Your task to perform on an android device: Search for Mexican restaurants on Maps Image 0: 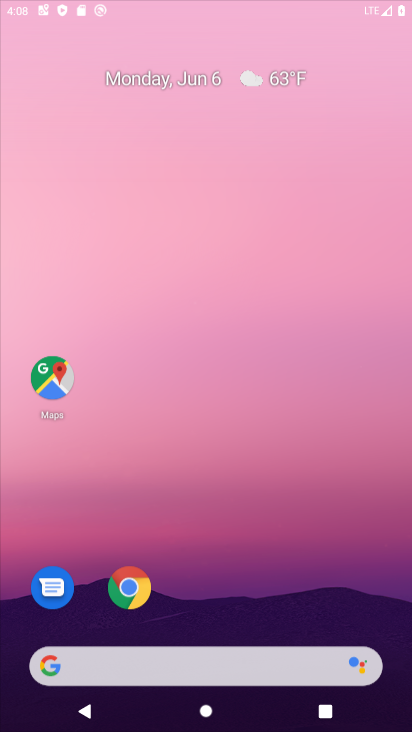
Step 0: drag from (220, 512) to (179, 284)
Your task to perform on an android device: Search for Mexican restaurants on Maps Image 1: 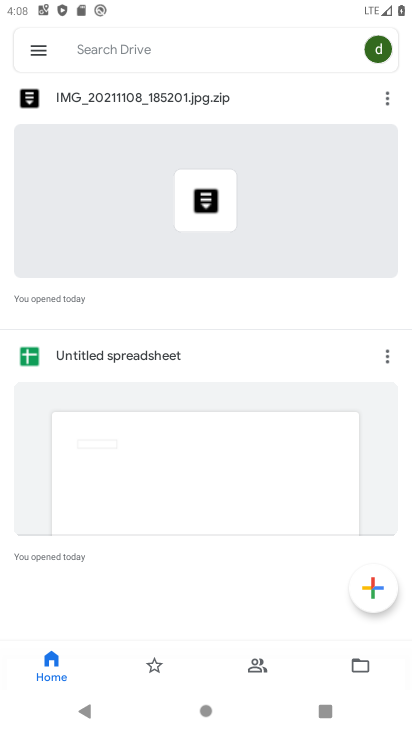
Step 1: press back button
Your task to perform on an android device: Search for Mexican restaurants on Maps Image 2: 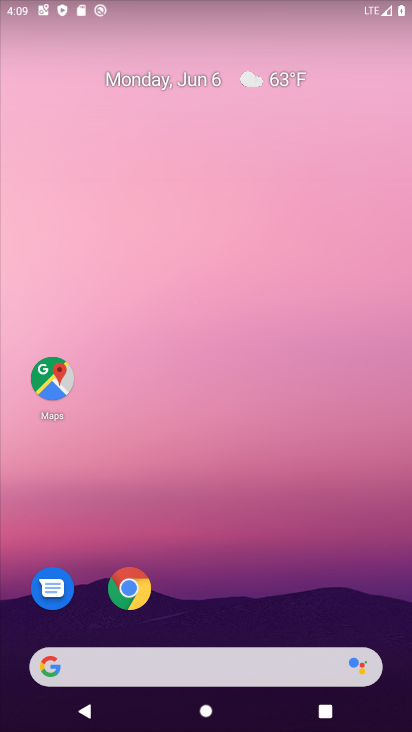
Step 2: drag from (270, 651) to (176, 55)
Your task to perform on an android device: Search for Mexican restaurants on Maps Image 3: 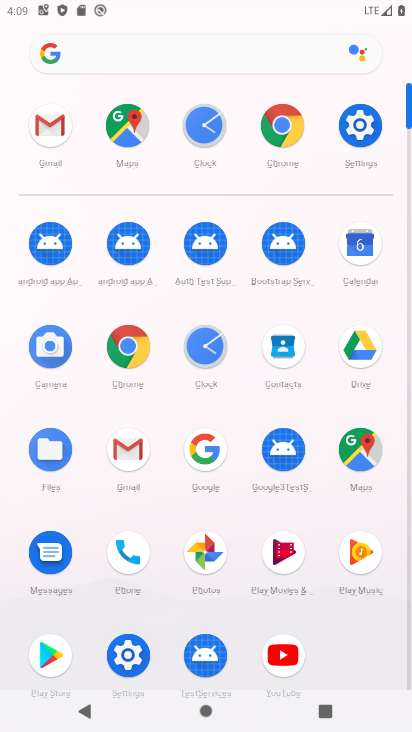
Step 3: click (362, 465)
Your task to perform on an android device: Search for Mexican restaurants on Maps Image 4: 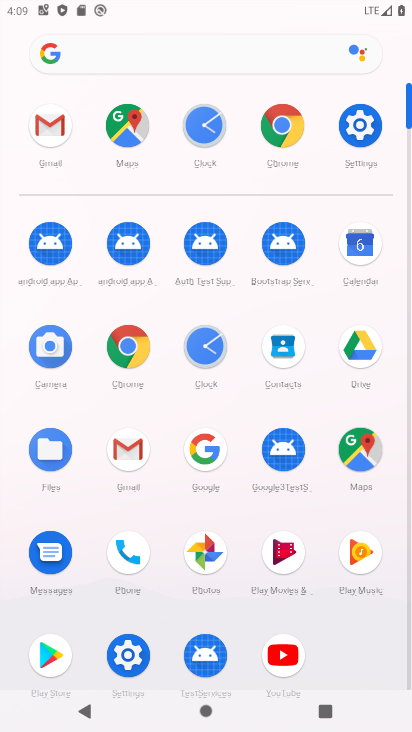
Step 4: click (366, 463)
Your task to perform on an android device: Search for Mexican restaurants on Maps Image 5: 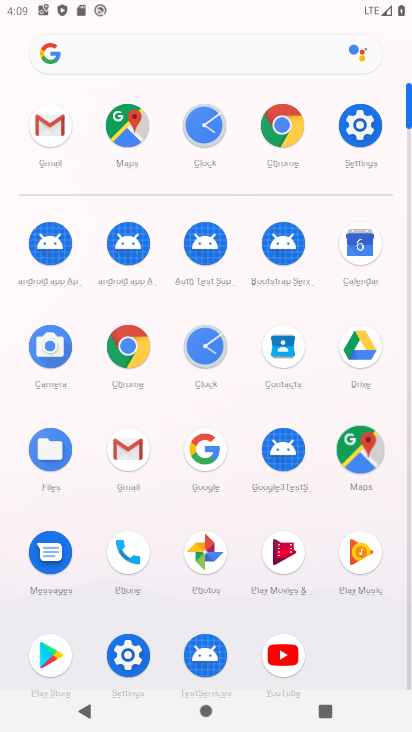
Step 5: click (366, 463)
Your task to perform on an android device: Search for Mexican restaurants on Maps Image 6: 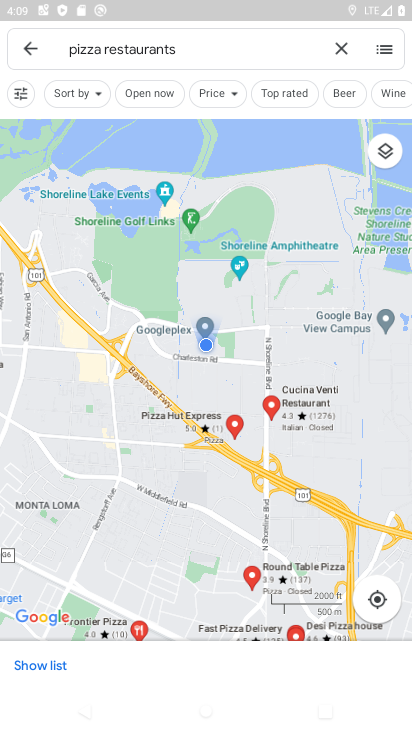
Step 6: click (339, 52)
Your task to perform on an android device: Search for Mexican restaurants on Maps Image 7: 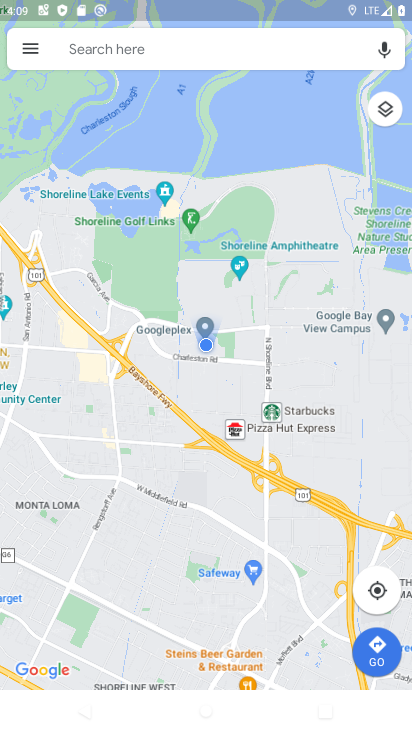
Step 7: click (68, 49)
Your task to perform on an android device: Search for Mexican restaurants on Maps Image 8: 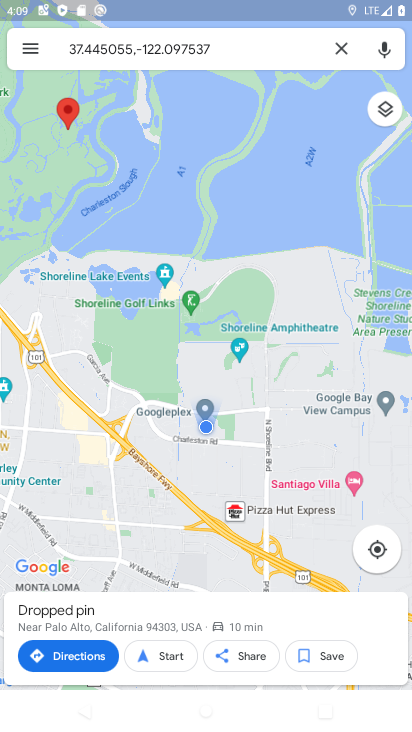
Step 8: type "m"
Your task to perform on an android device: Search for Mexican restaurants on Maps Image 9: 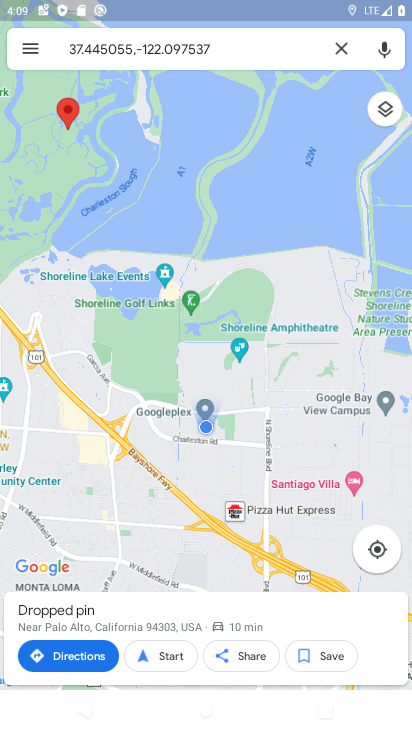
Step 9: click (76, 45)
Your task to perform on an android device: Search for Mexican restaurants on Maps Image 10: 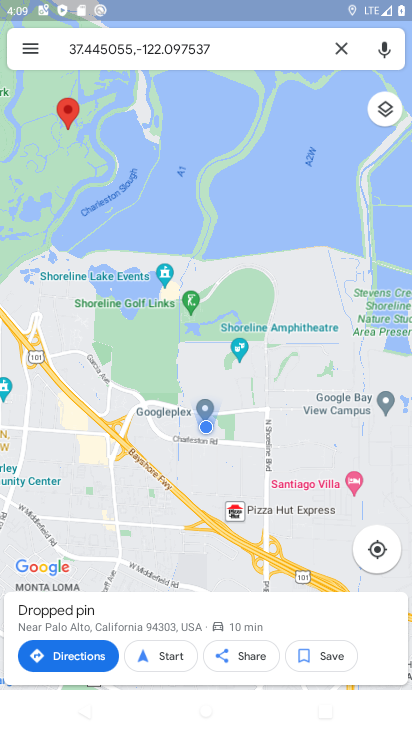
Step 10: click (348, 49)
Your task to perform on an android device: Search for Mexican restaurants on Maps Image 11: 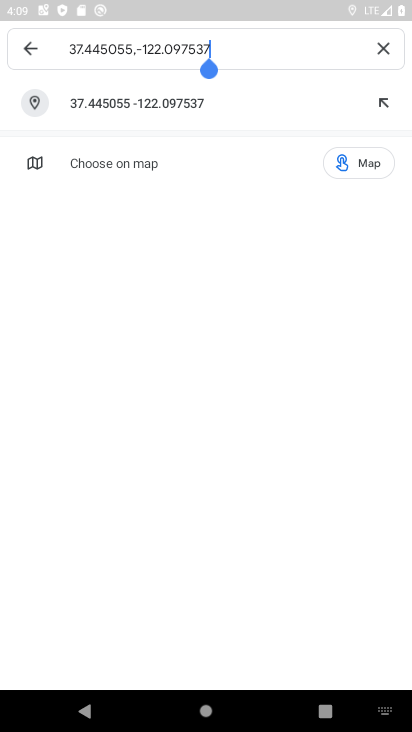
Step 11: click (373, 37)
Your task to perform on an android device: Search for Mexican restaurants on Maps Image 12: 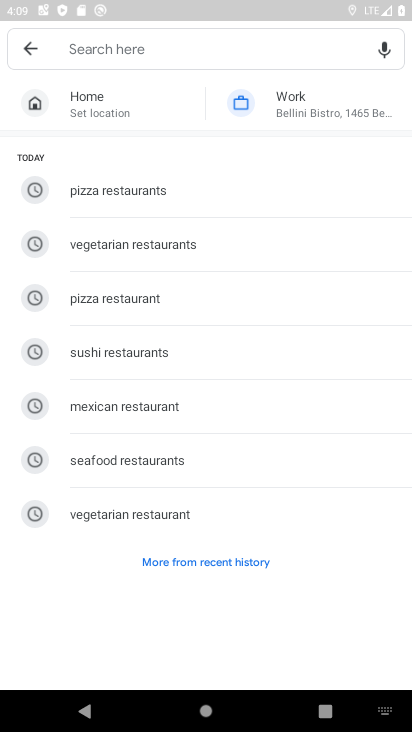
Step 12: click (389, 47)
Your task to perform on an android device: Search for Mexican restaurants on Maps Image 13: 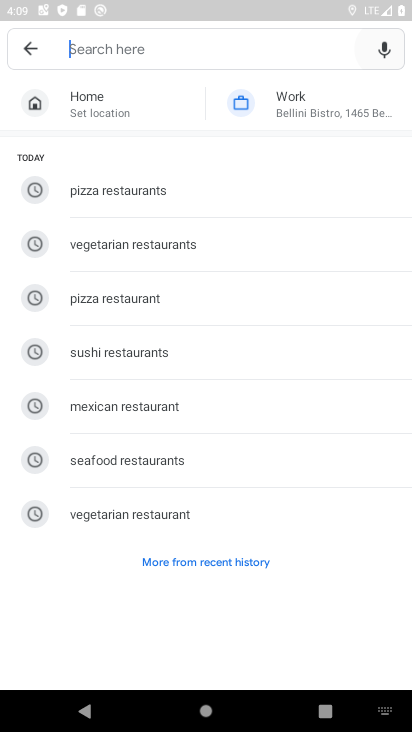
Step 13: click (389, 47)
Your task to perform on an android device: Search for Mexican restaurants on Maps Image 14: 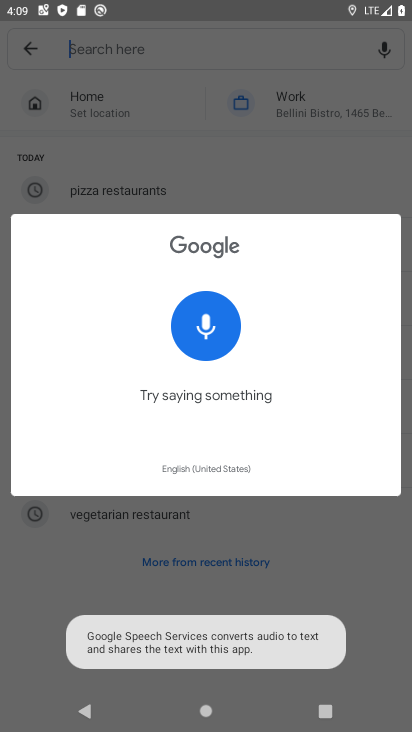
Step 14: click (210, 155)
Your task to perform on an android device: Search for Mexican restaurants on Maps Image 15: 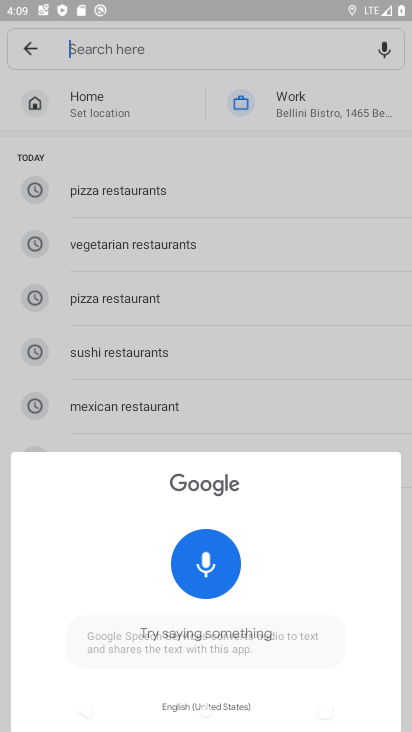
Step 15: click (210, 155)
Your task to perform on an android device: Search for Mexican restaurants on Maps Image 16: 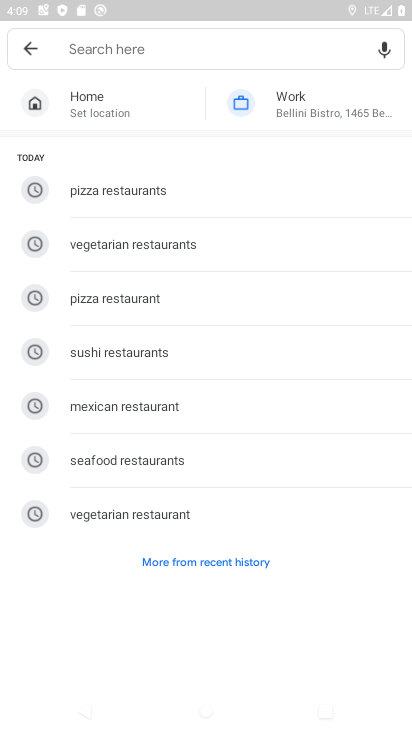
Step 16: click (104, 412)
Your task to perform on an android device: Search for Mexican restaurants on Maps Image 17: 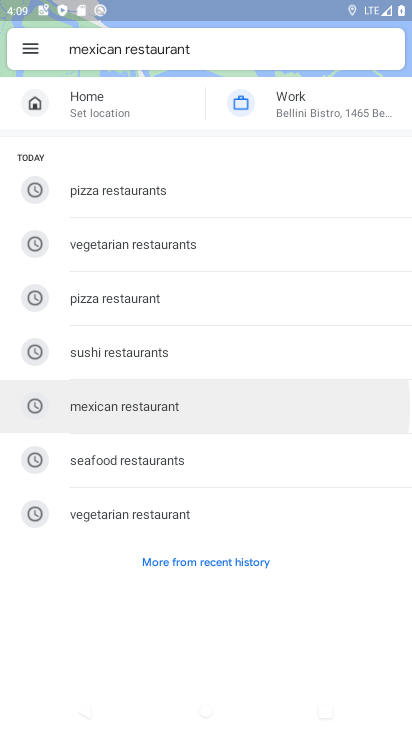
Step 17: click (104, 412)
Your task to perform on an android device: Search for Mexican restaurants on Maps Image 18: 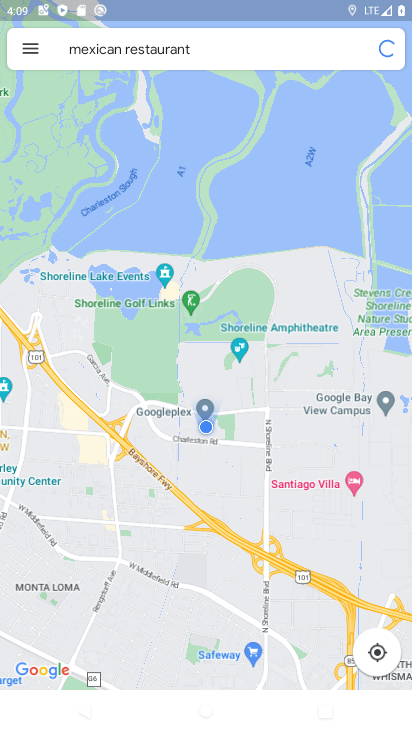
Step 18: click (104, 412)
Your task to perform on an android device: Search for Mexican restaurants on Maps Image 19: 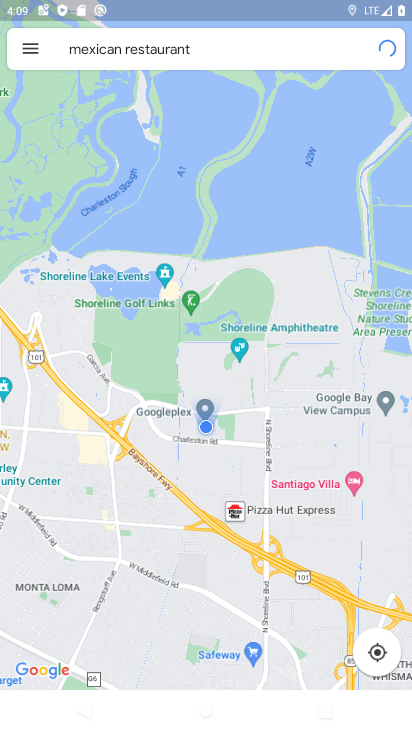
Step 19: task complete